Your task to perform on an android device: open the mobile data screen to see how much data has been used Image 0: 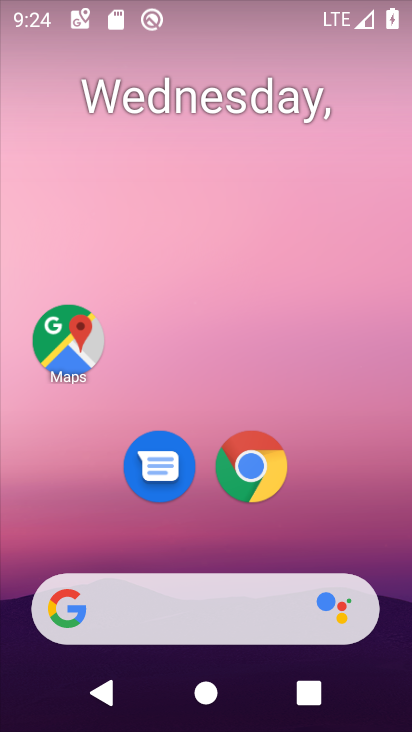
Step 0: drag from (240, 723) to (243, 68)
Your task to perform on an android device: open the mobile data screen to see how much data has been used Image 1: 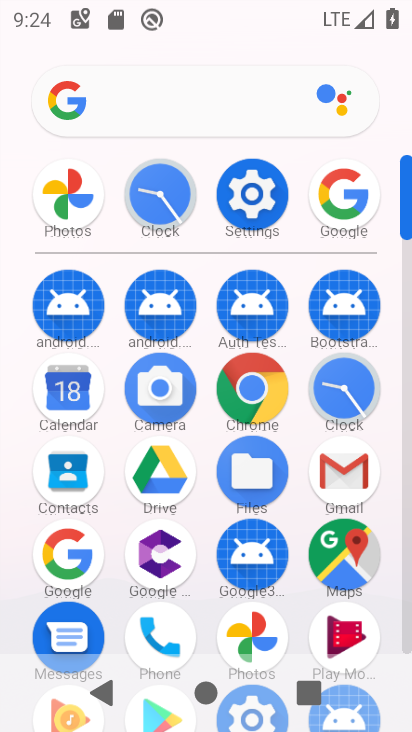
Step 1: click (251, 204)
Your task to perform on an android device: open the mobile data screen to see how much data has been used Image 2: 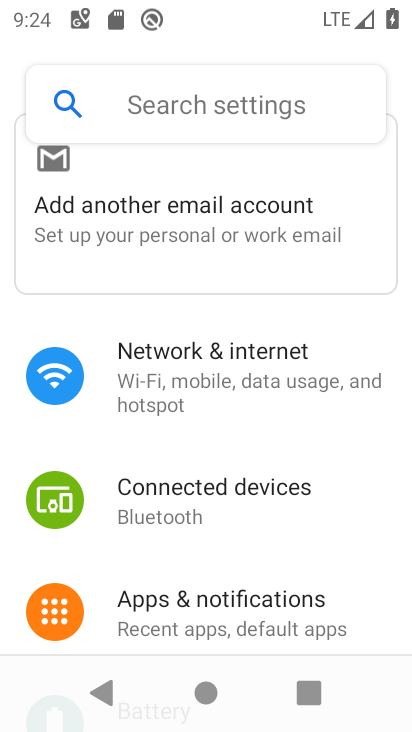
Step 2: click (155, 379)
Your task to perform on an android device: open the mobile data screen to see how much data has been used Image 3: 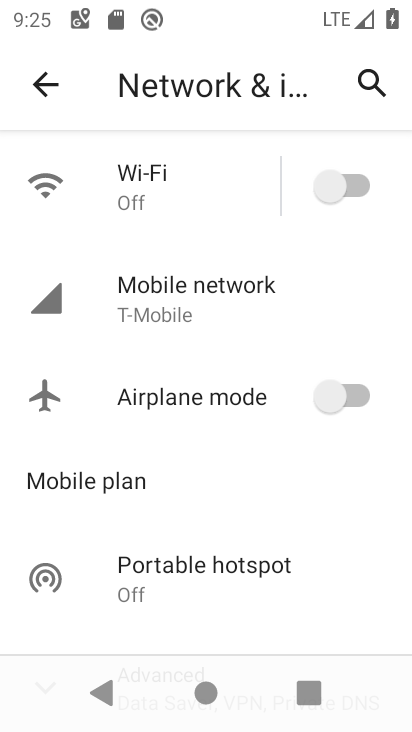
Step 3: click (183, 269)
Your task to perform on an android device: open the mobile data screen to see how much data has been used Image 4: 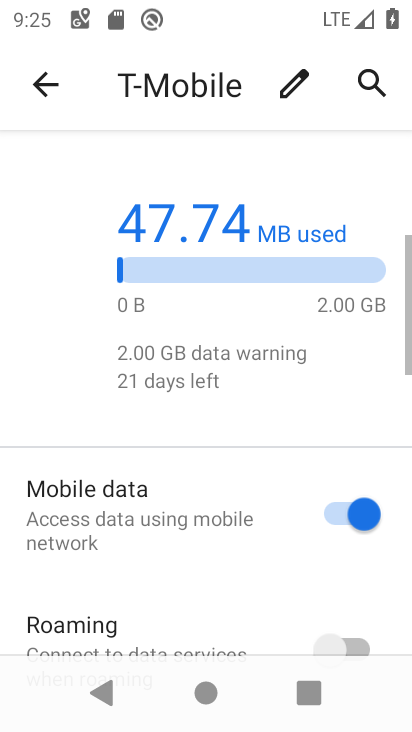
Step 4: drag from (236, 616) to (224, 274)
Your task to perform on an android device: open the mobile data screen to see how much data has been used Image 5: 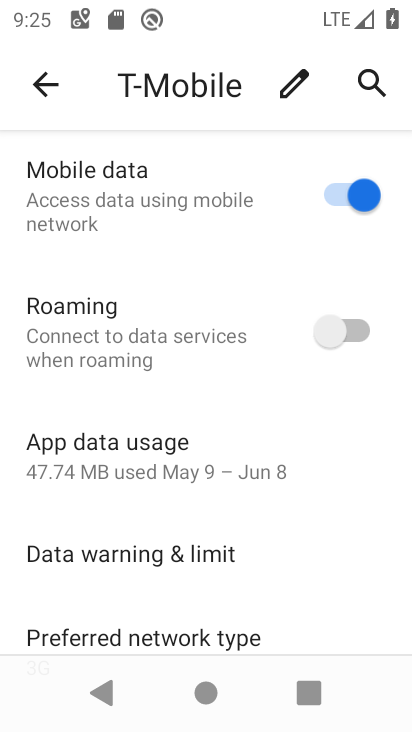
Step 5: click (118, 454)
Your task to perform on an android device: open the mobile data screen to see how much data has been used Image 6: 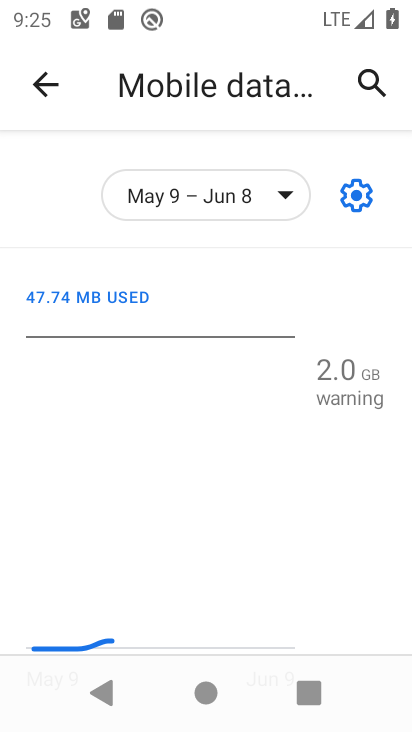
Step 6: task complete